Your task to perform on an android device: Open location settings Image 0: 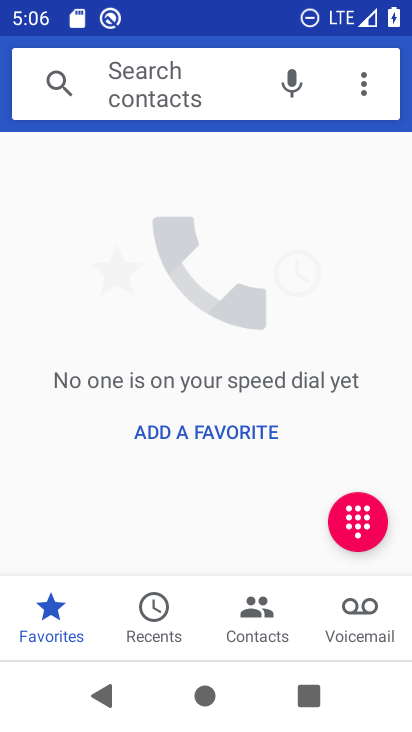
Step 0: press back button
Your task to perform on an android device: Open location settings Image 1: 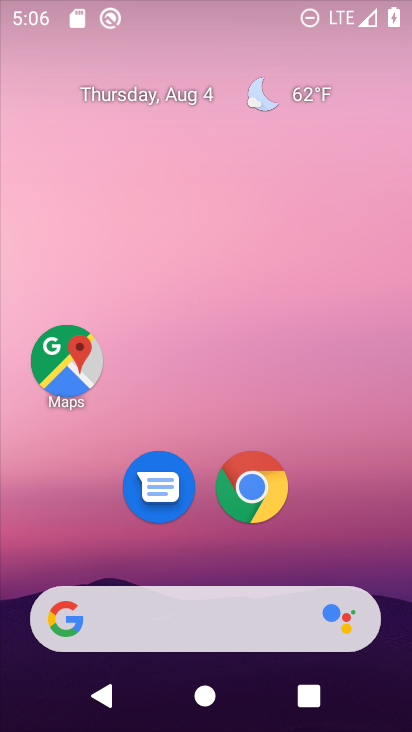
Step 1: drag from (231, 515) to (272, 57)
Your task to perform on an android device: Open location settings Image 2: 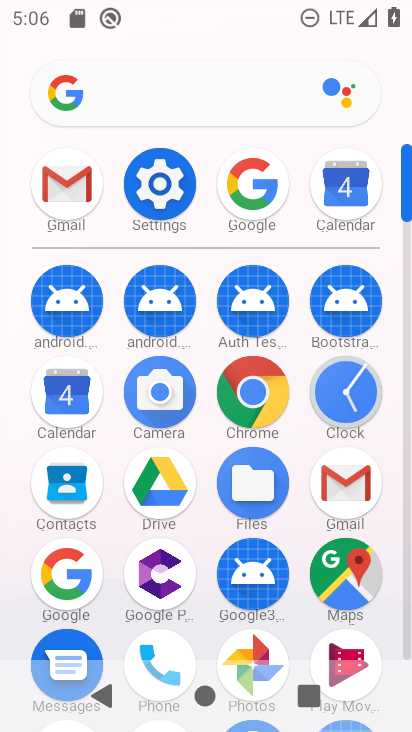
Step 2: click (159, 175)
Your task to perform on an android device: Open location settings Image 3: 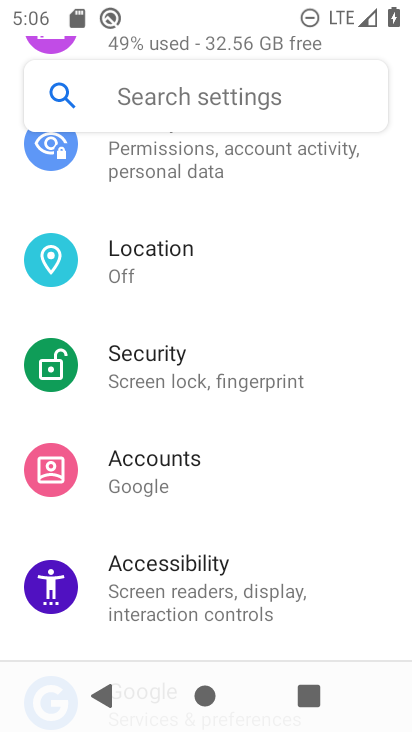
Step 3: click (232, 266)
Your task to perform on an android device: Open location settings Image 4: 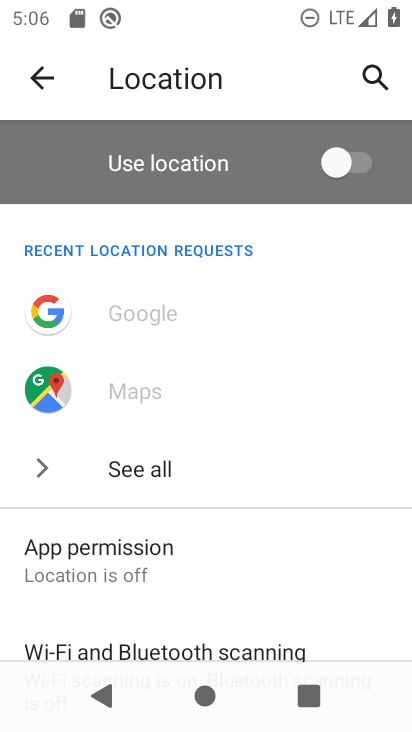
Step 4: task complete